Your task to perform on an android device: open app "Upside-Cash back on gas & food" Image 0: 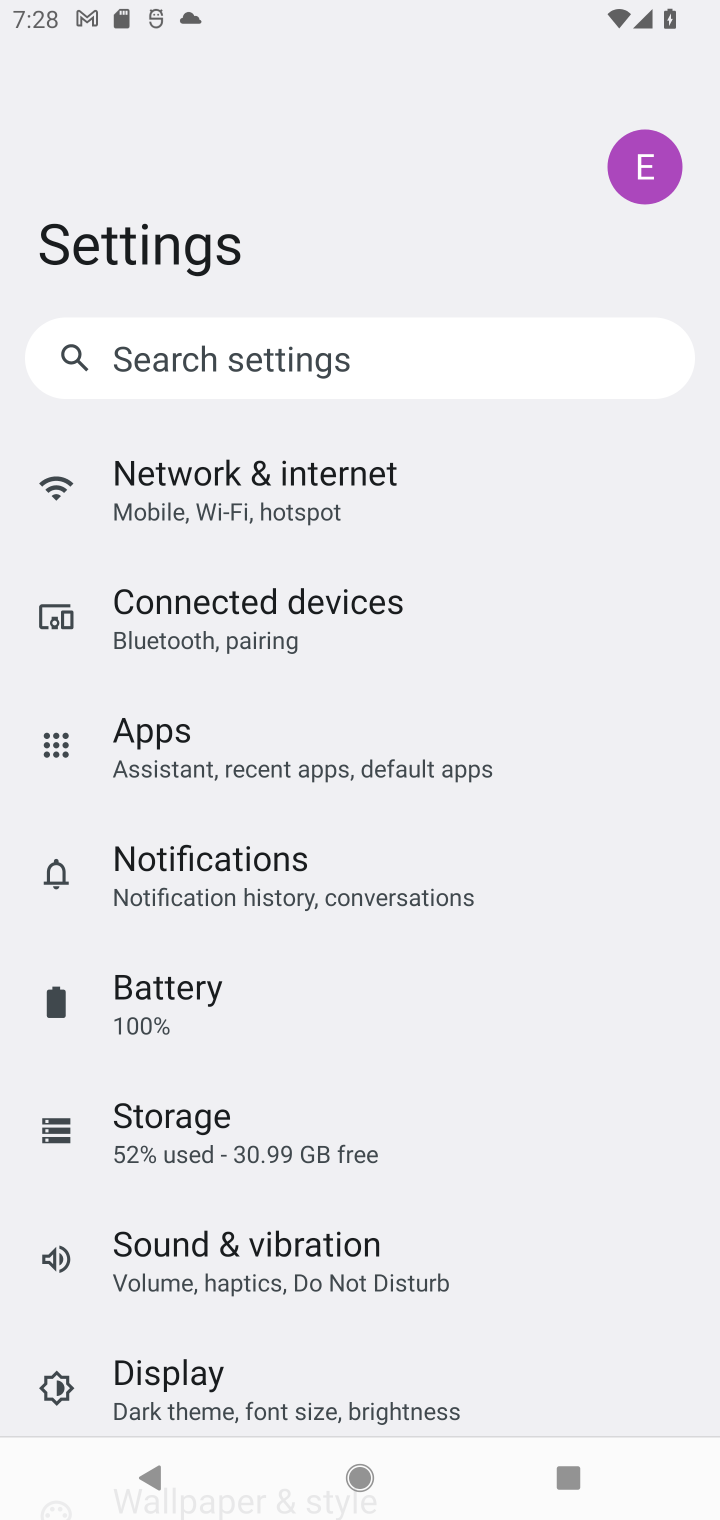
Step 0: press home button
Your task to perform on an android device: open app "Upside-Cash back on gas & food" Image 1: 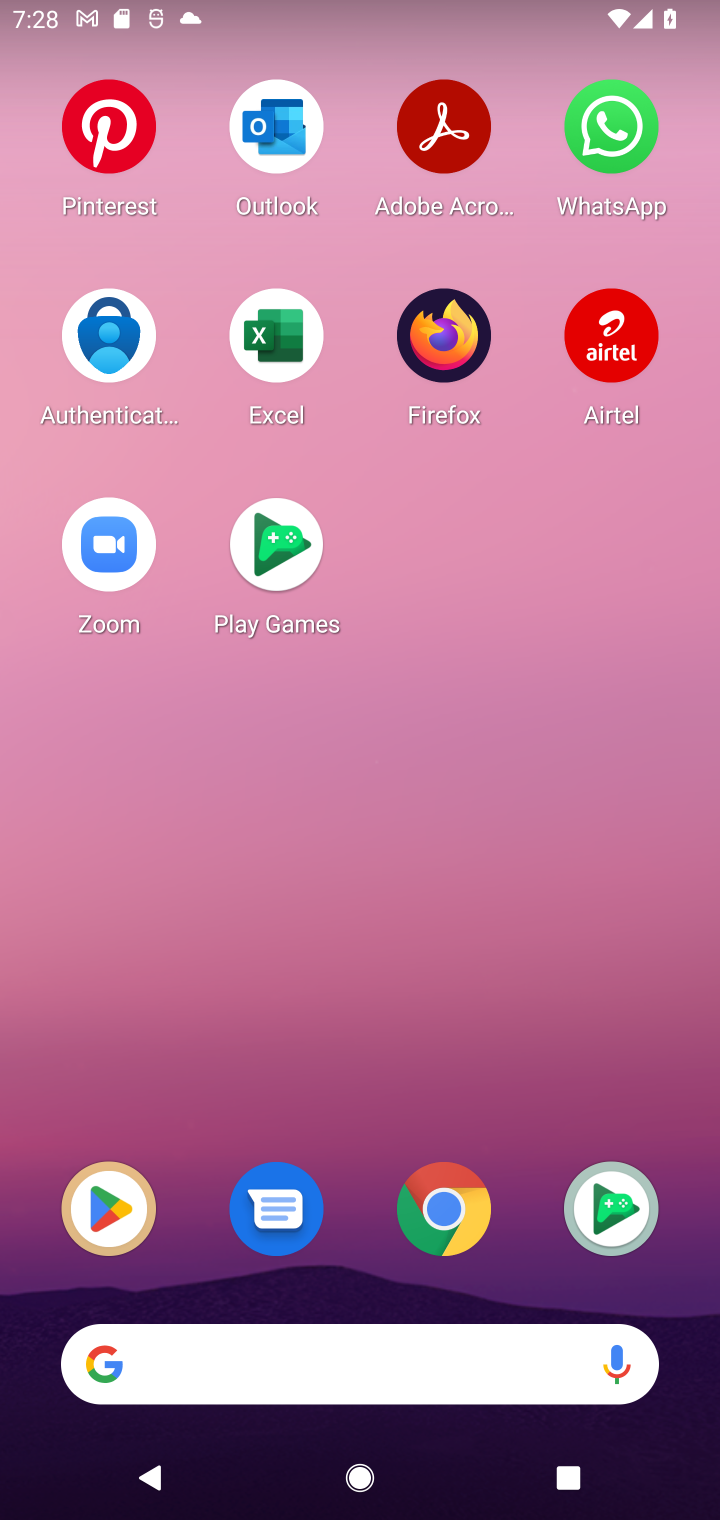
Step 1: drag from (449, 1171) to (385, 270)
Your task to perform on an android device: open app "Upside-Cash back on gas & food" Image 2: 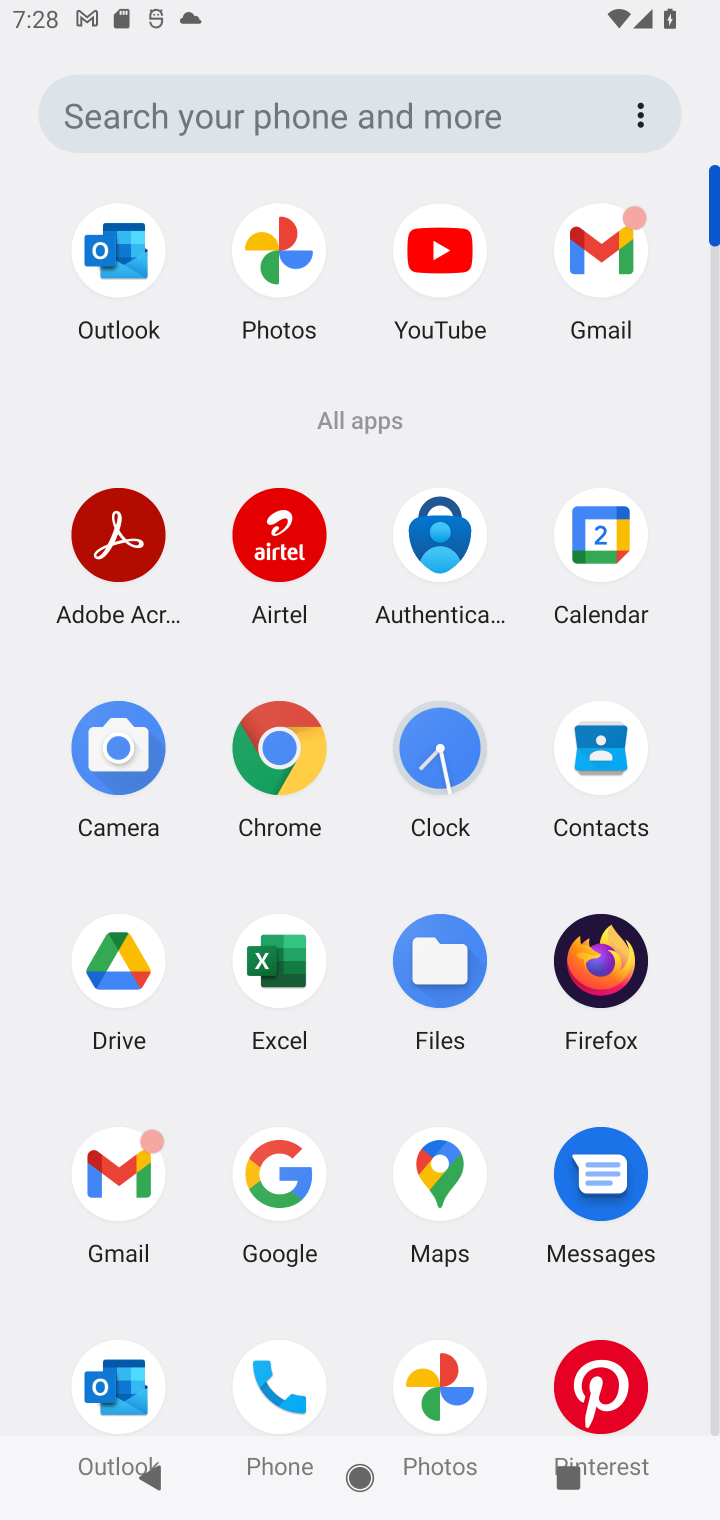
Step 2: drag from (358, 1388) to (358, 603)
Your task to perform on an android device: open app "Upside-Cash back on gas & food" Image 3: 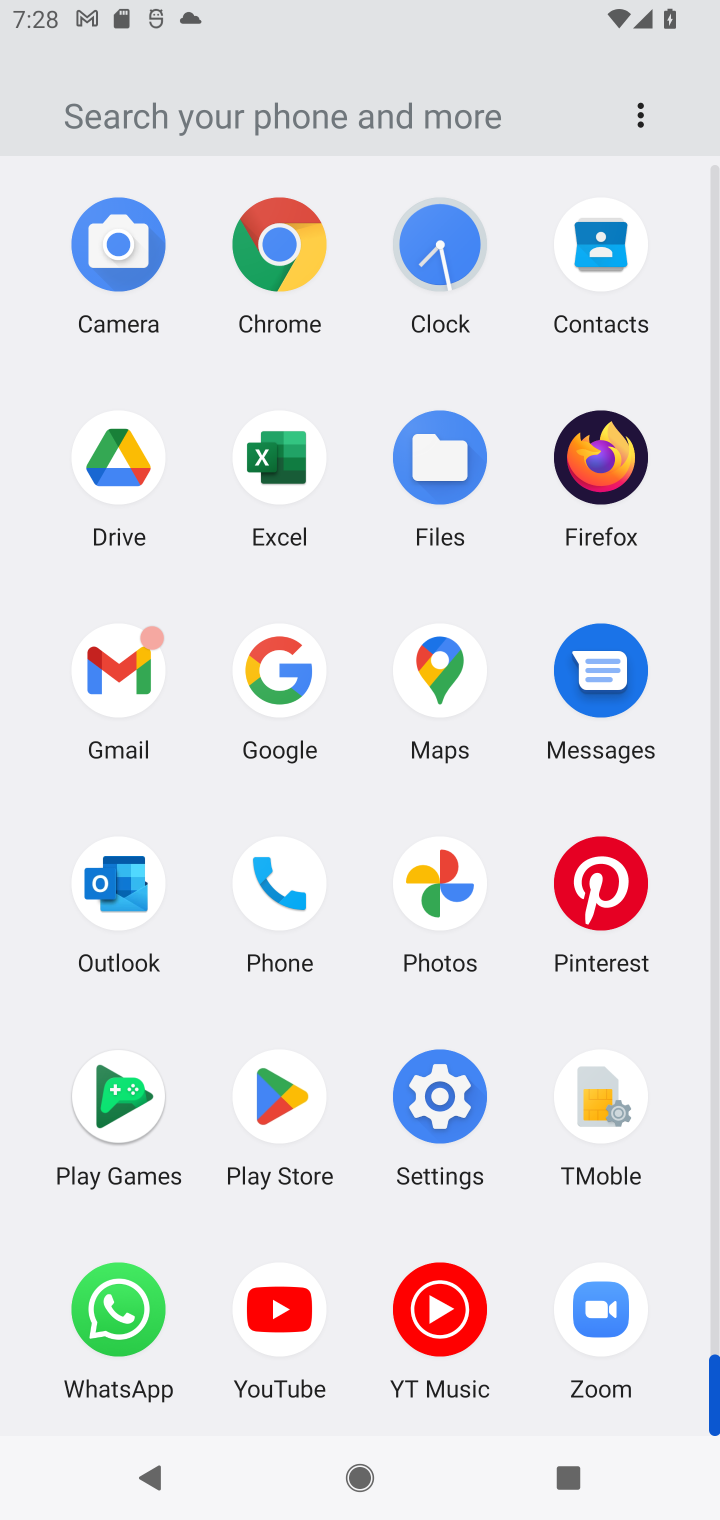
Step 3: click (271, 1109)
Your task to perform on an android device: open app "Upside-Cash back on gas & food" Image 4: 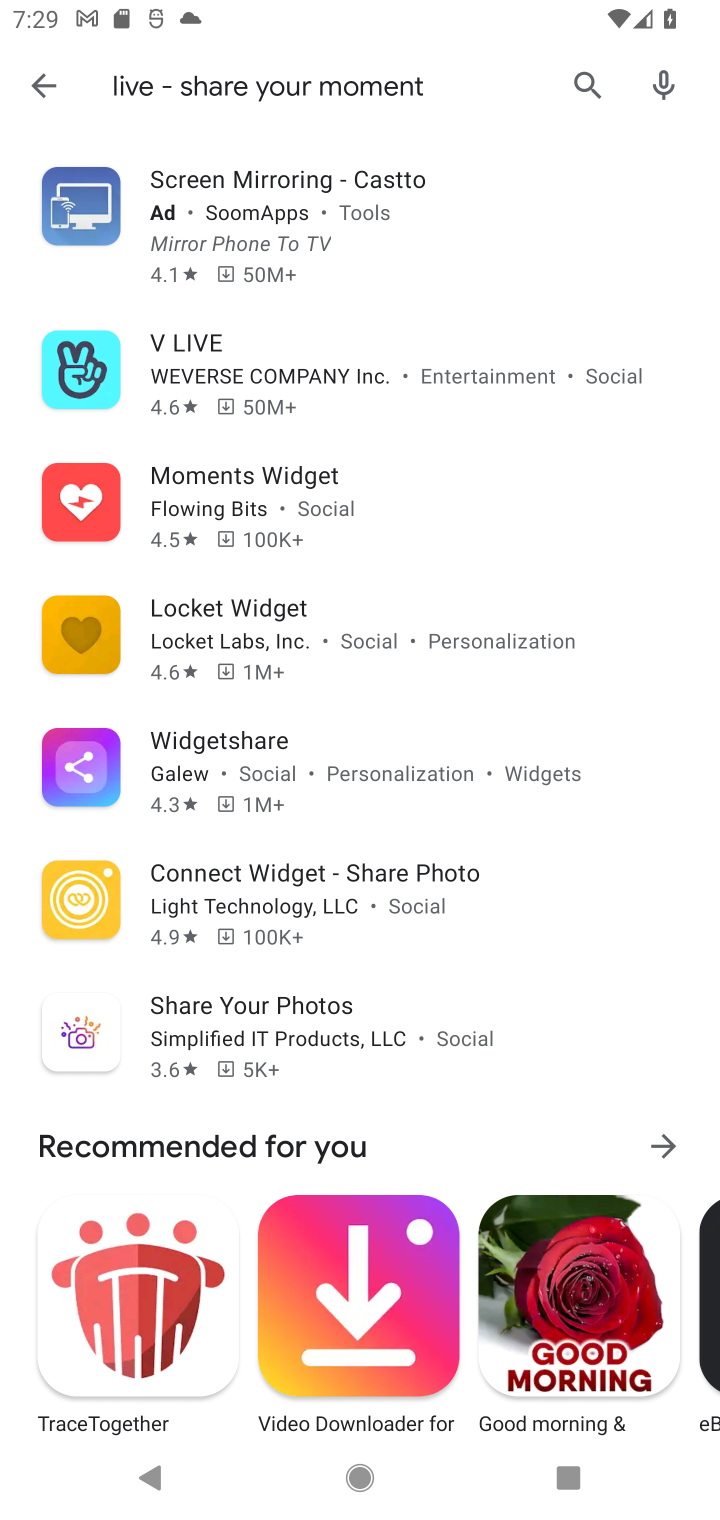
Step 4: click (597, 79)
Your task to perform on an android device: open app "Upside-Cash back on gas & food" Image 5: 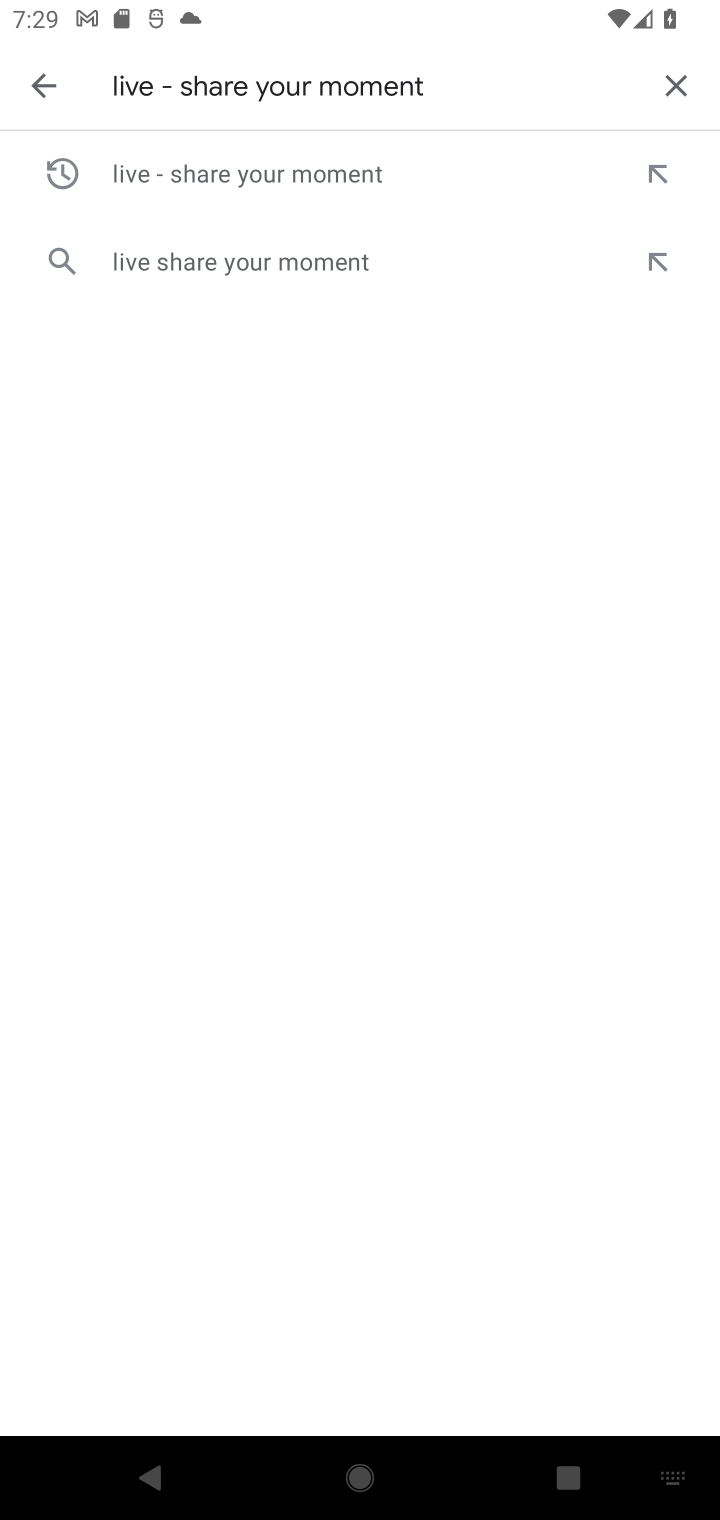
Step 5: click (678, 83)
Your task to perform on an android device: open app "Upside-Cash back on gas & food" Image 6: 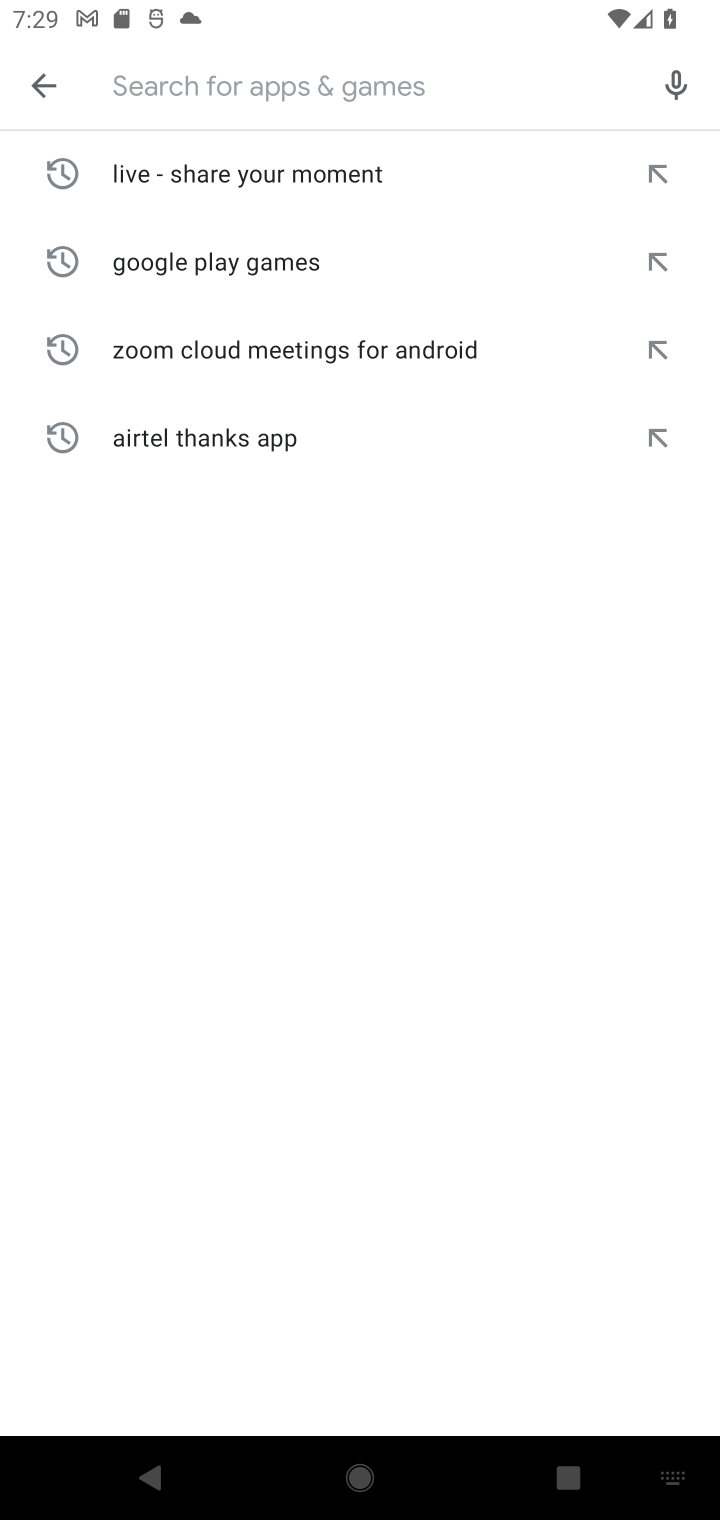
Step 6: type "Upside-Cash back on gas & food"
Your task to perform on an android device: open app "Upside-Cash back on gas & food" Image 7: 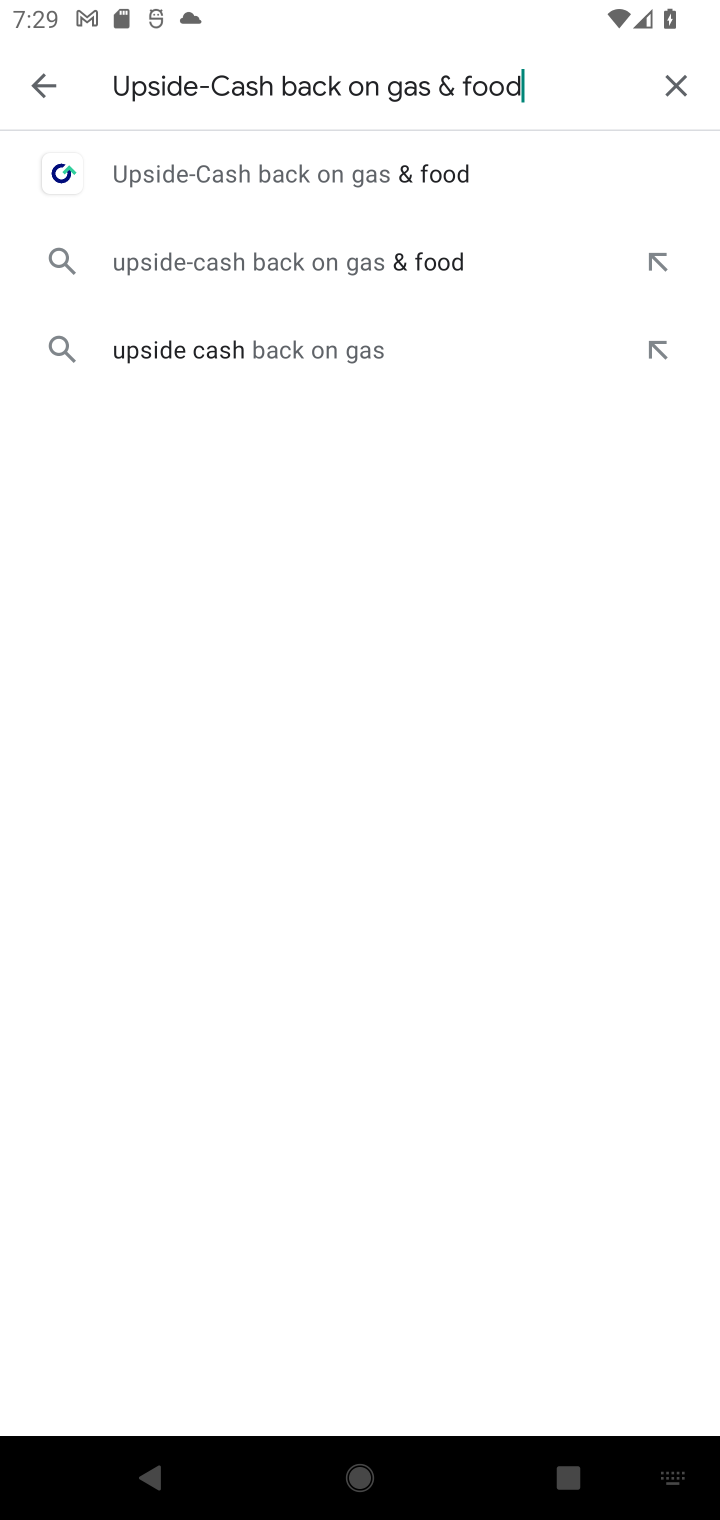
Step 7: type ""
Your task to perform on an android device: open app "Upside-Cash back on gas & food" Image 8: 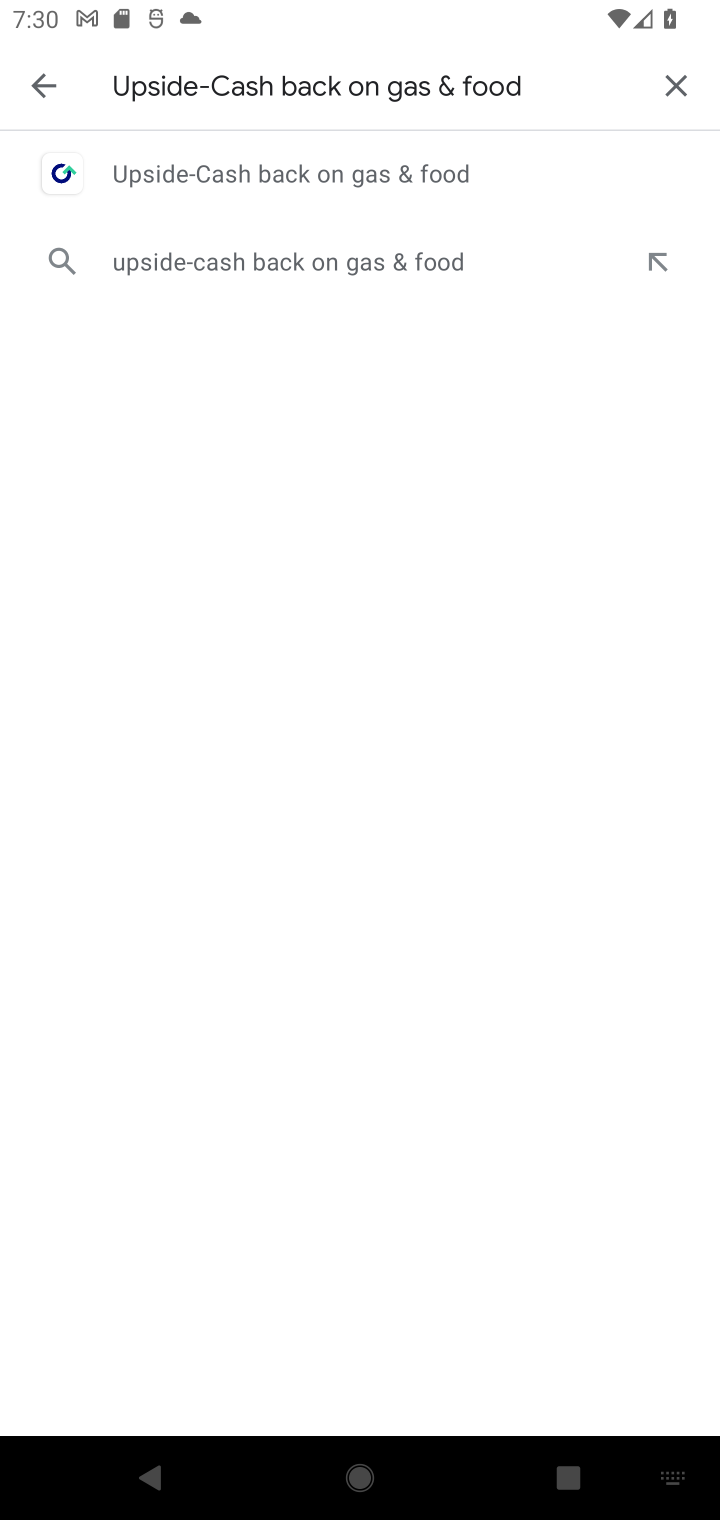
Step 8: click (404, 174)
Your task to perform on an android device: open app "Upside-Cash back on gas & food" Image 9: 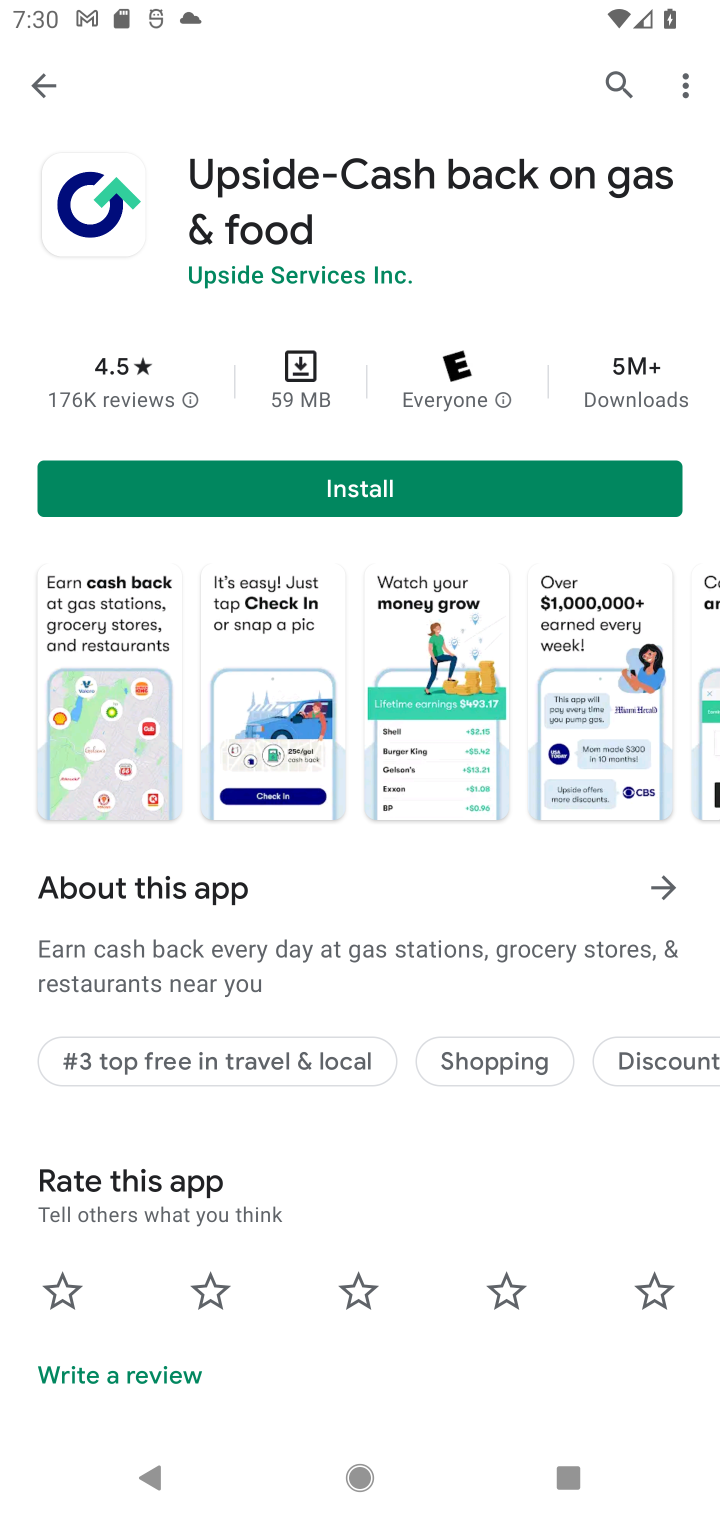
Step 9: task complete